Your task to perform on an android device: Go to Maps Image 0: 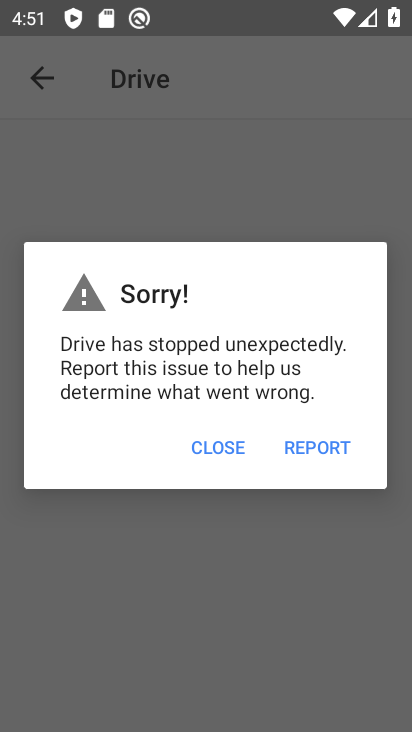
Step 0: task complete